Your task to perform on an android device: Open location settings Image 0: 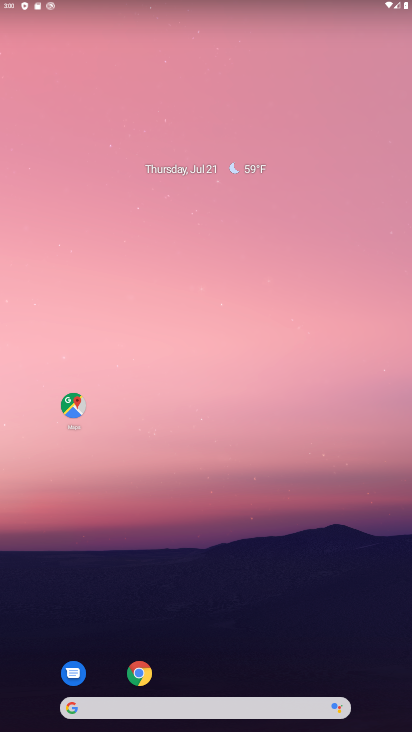
Step 0: drag from (378, 690) to (349, 184)
Your task to perform on an android device: Open location settings Image 1: 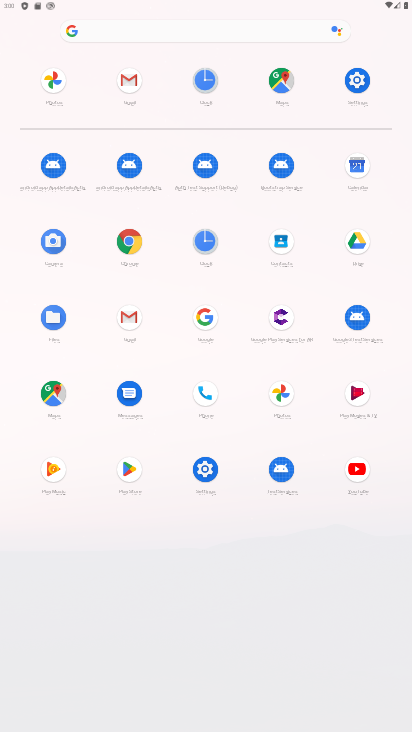
Step 1: click (204, 469)
Your task to perform on an android device: Open location settings Image 2: 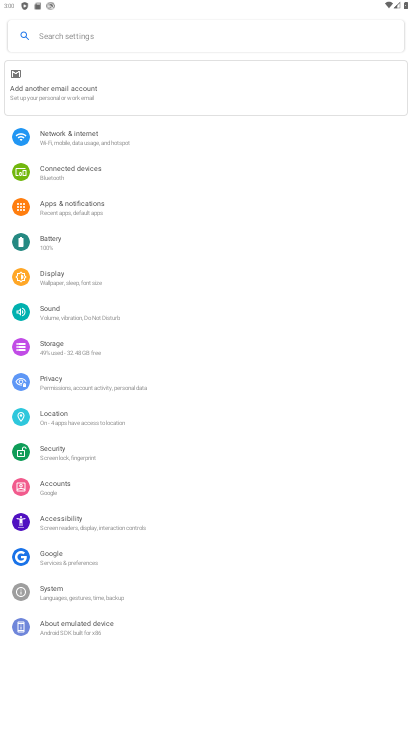
Step 2: click (56, 418)
Your task to perform on an android device: Open location settings Image 3: 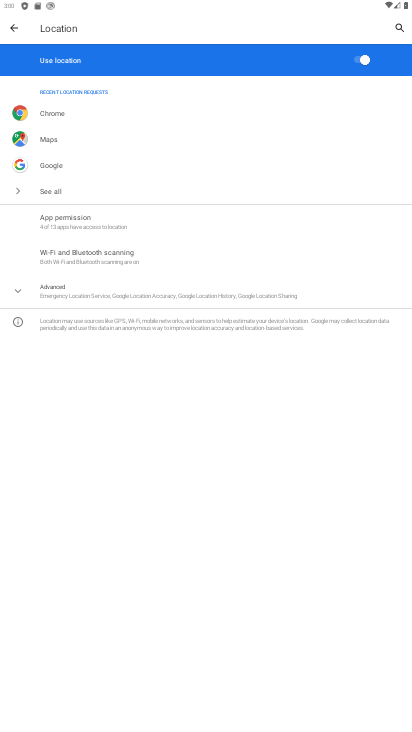
Step 3: click (17, 290)
Your task to perform on an android device: Open location settings Image 4: 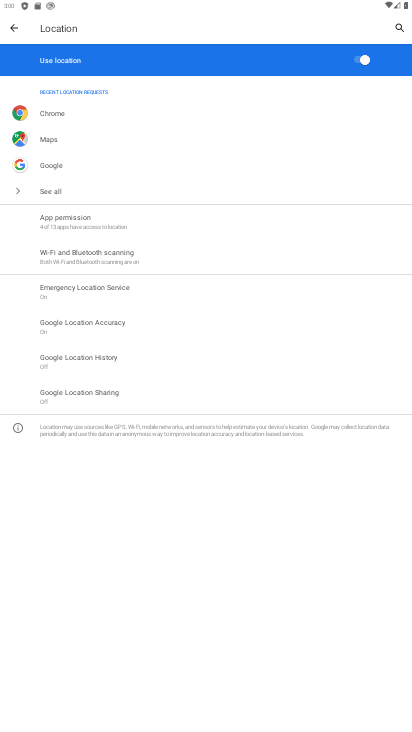
Step 4: task complete